Your task to perform on an android device: Go to battery settings Image 0: 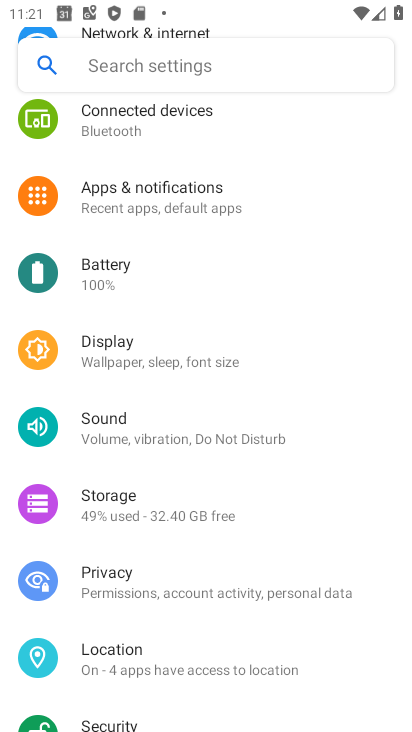
Step 0: press home button
Your task to perform on an android device: Go to battery settings Image 1: 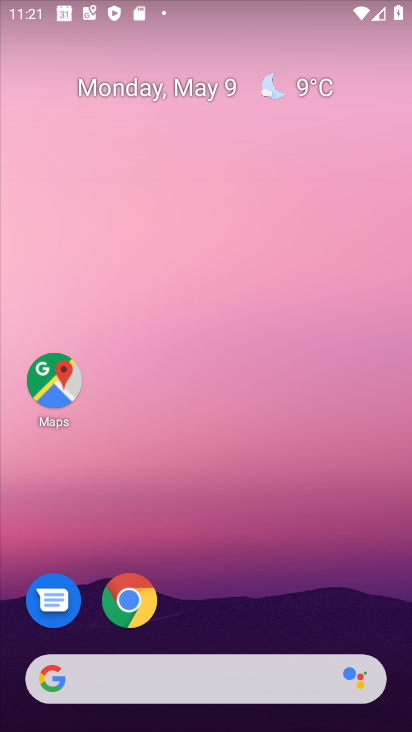
Step 1: drag from (364, 601) to (361, 263)
Your task to perform on an android device: Go to battery settings Image 2: 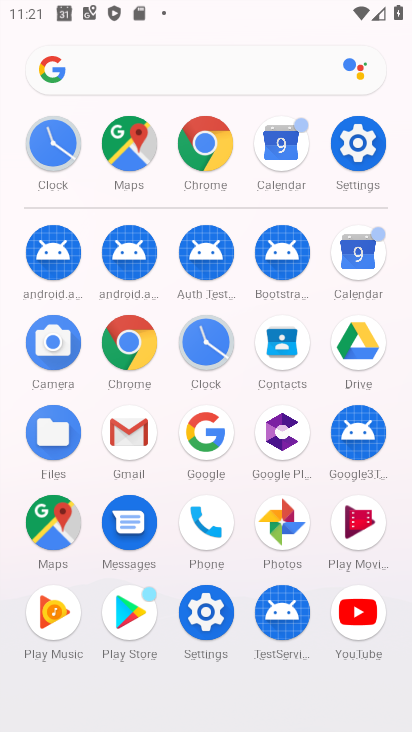
Step 2: click (368, 141)
Your task to perform on an android device: Go to battery settings Image 3: 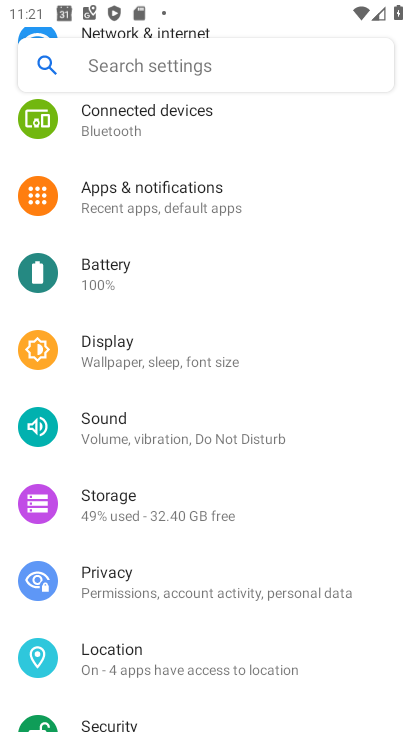
Step 3: click (97, 278)
Your task to perform on an android device: Go to battery settings Image 4: 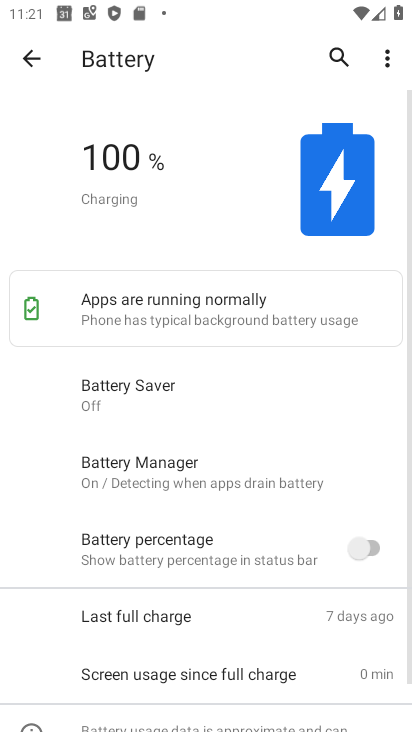
Step 4: task complete